Your task to perform on an android device: Go to notification settings Image 0: 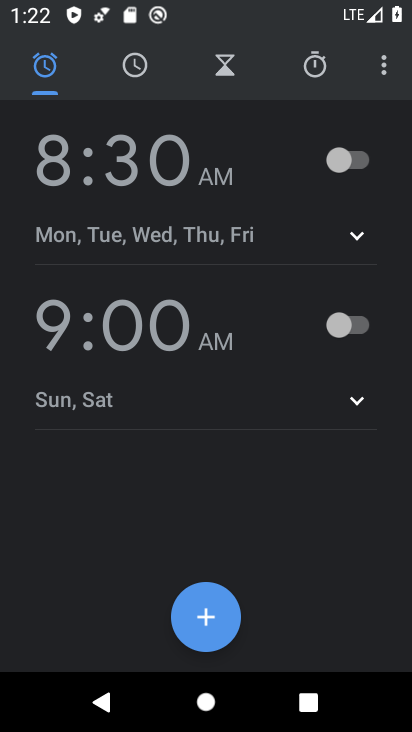
Step 0: press home button
Your task to perform on an android device: Go to notification settings Image 1: 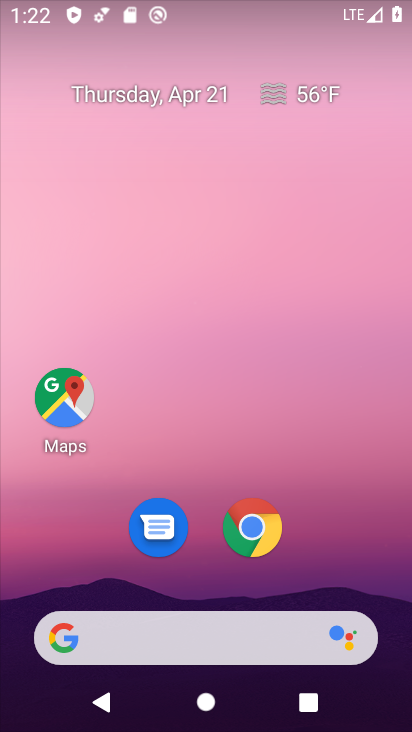
Step 1: drag from (210, 568) to (350, 21)
Your task to perform on an android device: Go to notification settings Image 2: 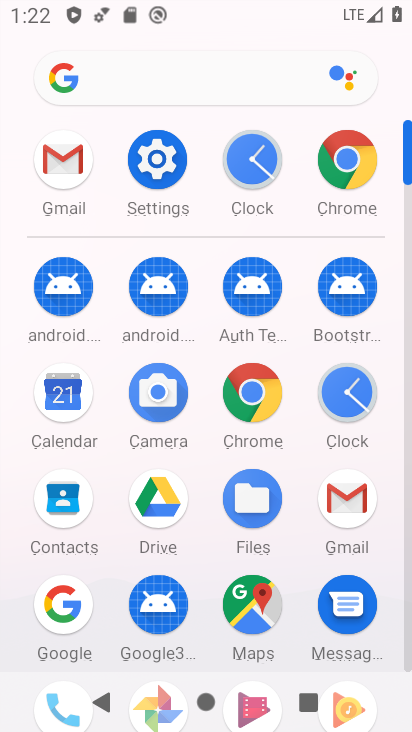
Step 2: click (165, 151)
Your task to perform on an android device: Go to notification settings Image 3: 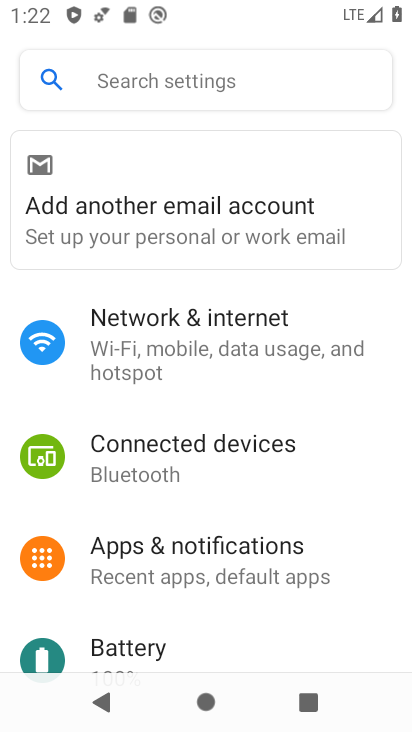
Step 3: click (176, 577)
Your task to perform on an android device: Go to notification settings Image 4: 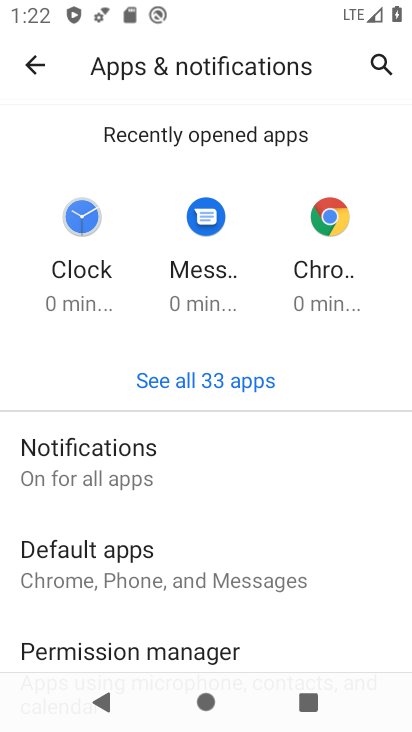
Step 4: click (132, 447)
Your task to perform on an android device: Go to notification settings Image 5: 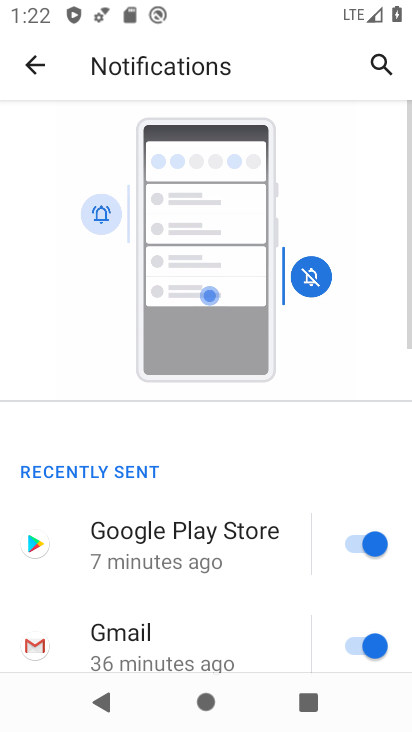
Step 5: task complete